Your task to perform on an android device: Search for pizza restaurants on Maps Image 0: 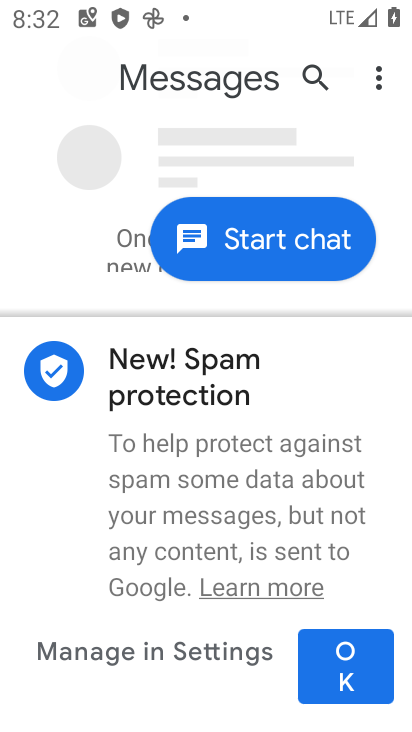
Step 0: press home button
Your task to perform on an android device: Search for pizza restaurants on Maps Image 1: 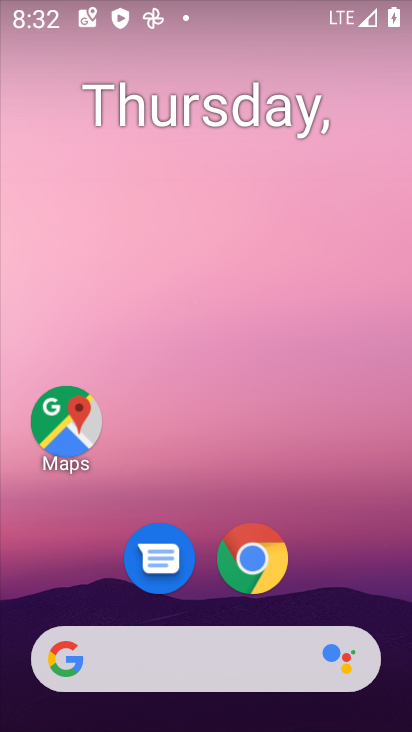
Step 1: click (61, 413)
Your task to perform on an android device: Search for pizza restaurants on Maps Image 2: 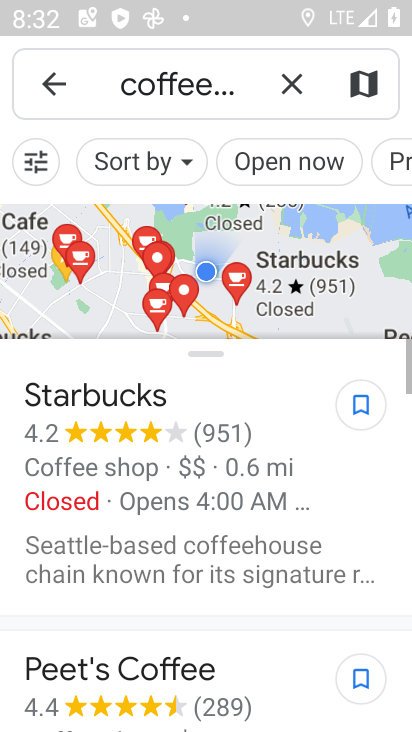
Step 2: click (287, 82)
Your task to perform on an android device: Search for pizza restaurants on Maps Image 3: 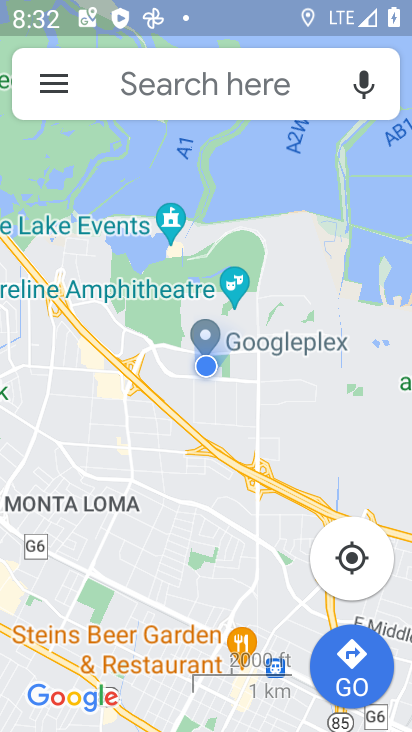
Step 3: click (209, 88)
Your task to perform on an android device: Search for pizza restaurants on Maps Image 4: 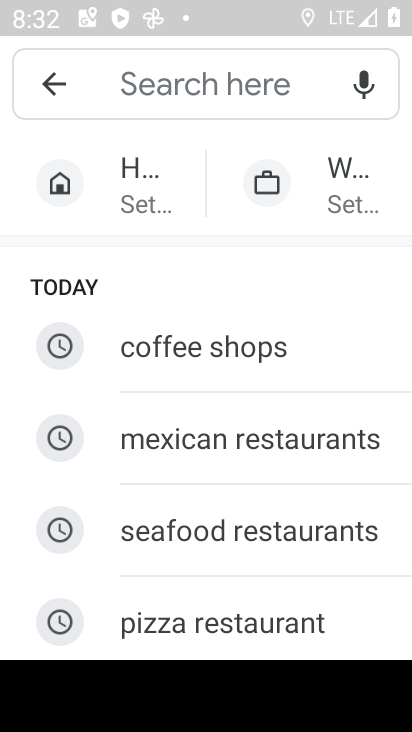
Step 4: click (156, 624)
Your task to perform on an android device: Search for pizza restaurants on Maps Image 5: 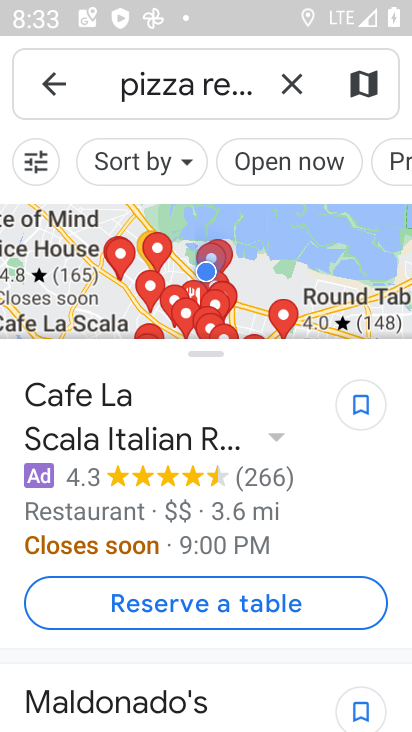
Step 5: task complete